Your task to perform on an android device: check android version Image 0: 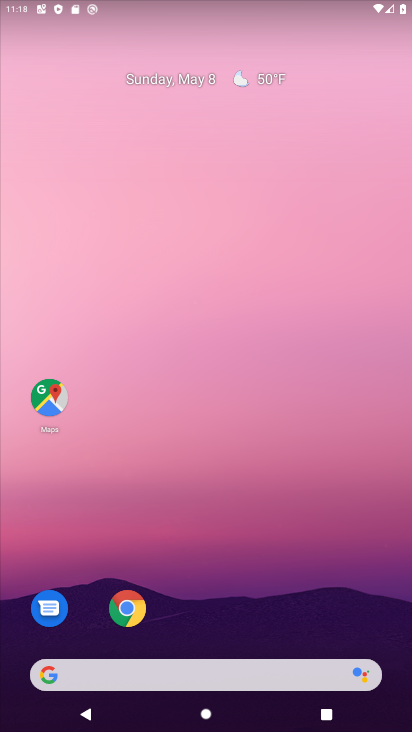
Step 0: drag from (301, 378) to (312, 42)
Your task to perform on an android device: check android version Image 1: 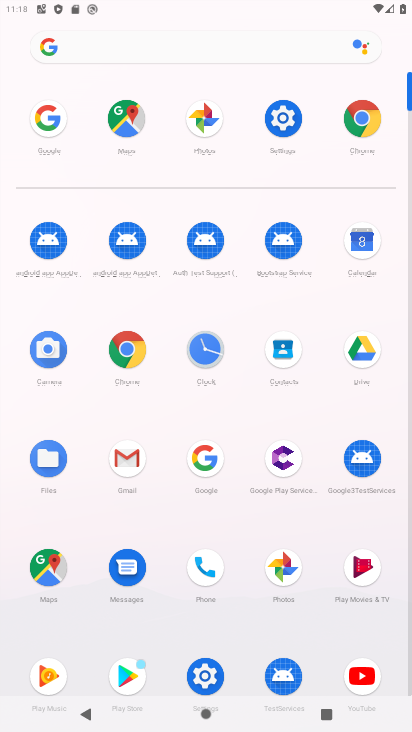
Step 1: click (288, 111)
Your task to perform on an android device: check android version Image 2: 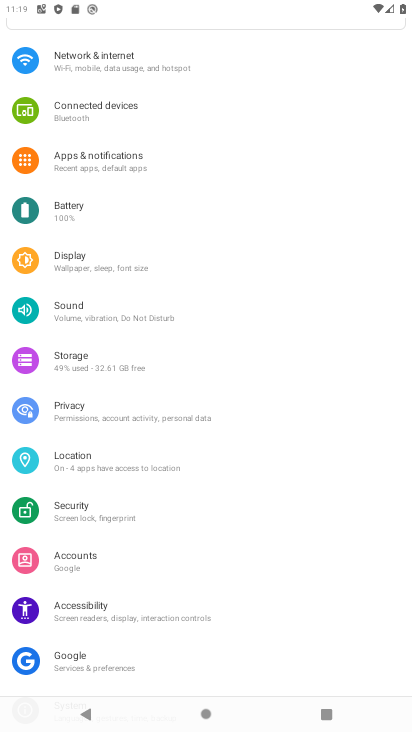
Step 2: drag from (152, 626) to (239, 64)
Your task to perform on an android device: check android version Image 3: 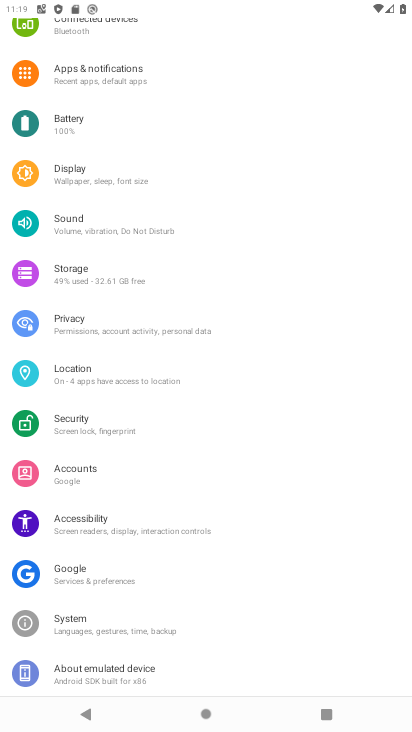
Step 3: drag from (194, 558) to (288, 75)
Your task to perform on an android device: check android version Image 4: 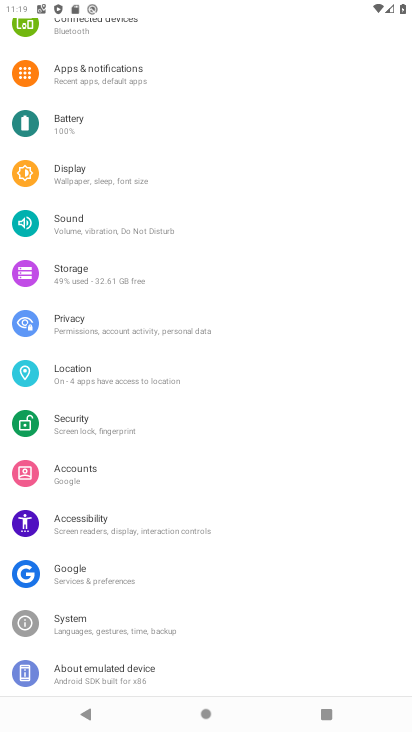
Step 4: drag from (192, 565) to (288, 153)
Your task to perform on an android device: check android version Image 5: 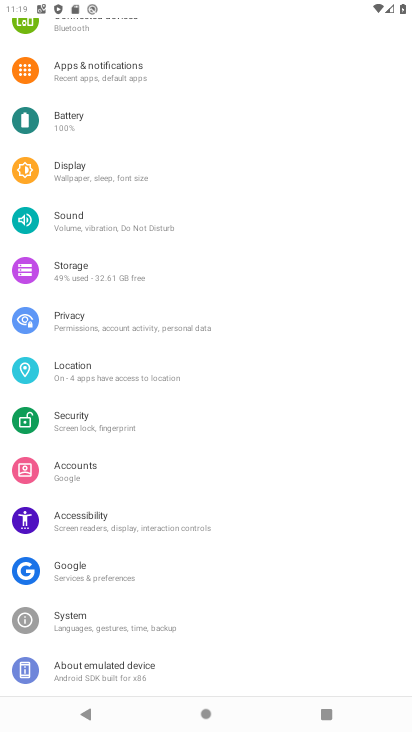
Step 5: drag from (200, 620) to (306, 162)
Your task to perform on an android device: check android version Image 6: 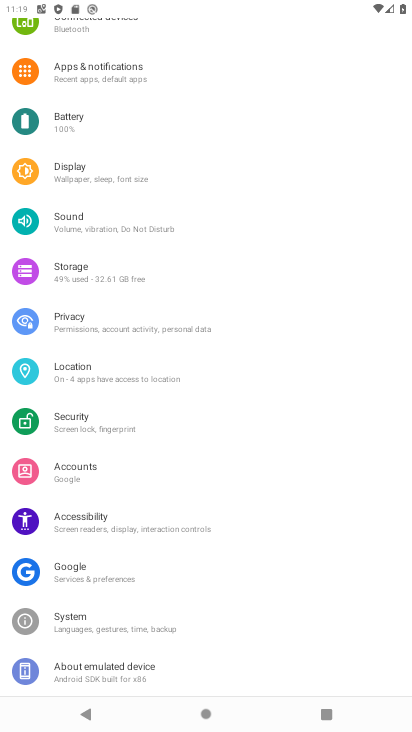
Step 6: click (84, 664)
Your task to perform on an android device: check android version Image 7: 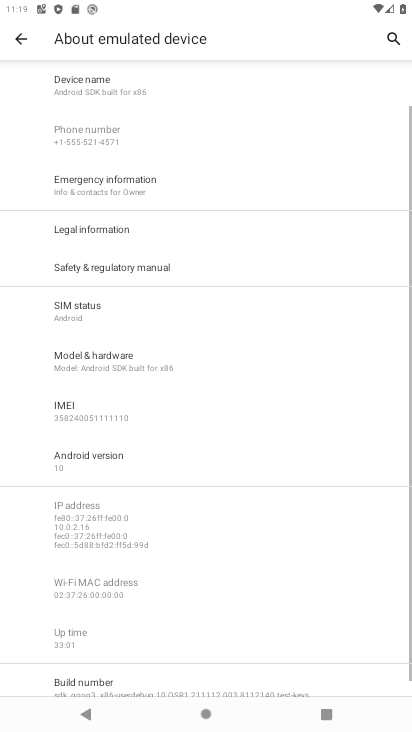
Step 7: click (72, 451)
Your task to perform on an android device: check android version Image 8: 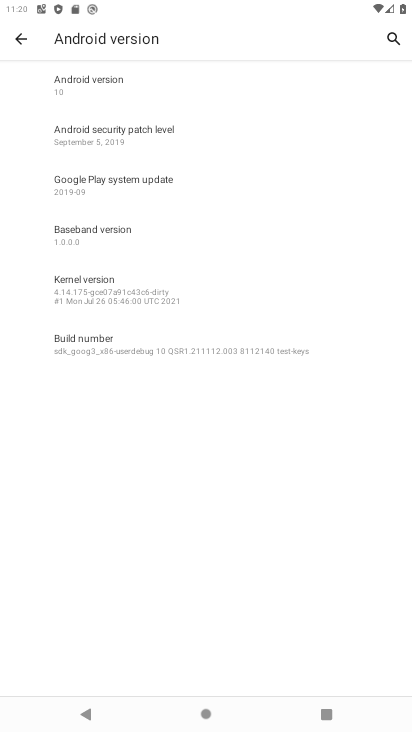
Step 8: click (102, 97)
Your task to perform on an android device: check android version Image 9: 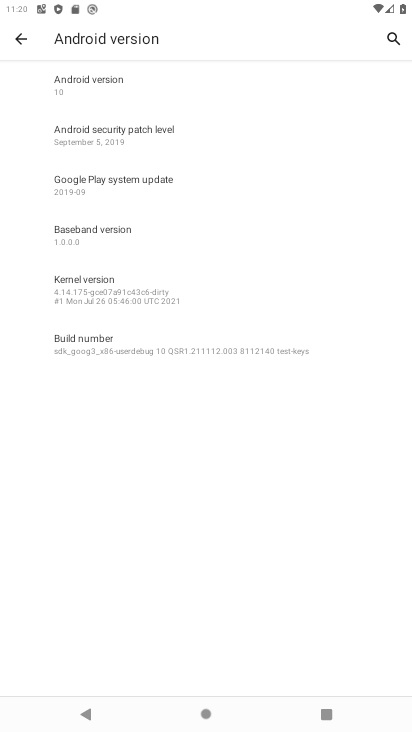
Step 9: task complete